Your task to perform on an android device: Open Google Chrome Image 0: 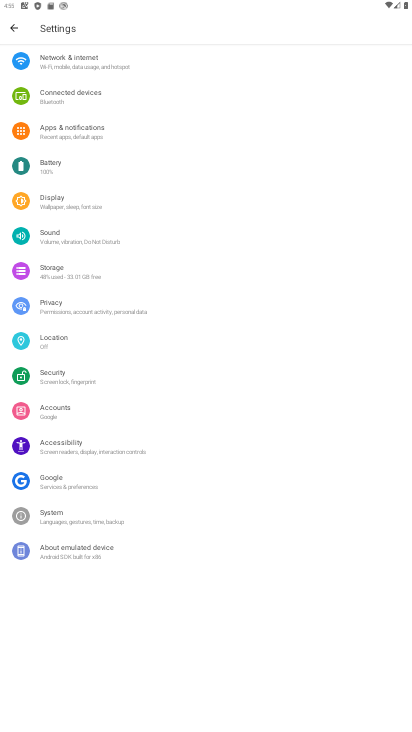
Step 0: press home button
Your task to perform on an android device: Open Google Chrome Image 1: 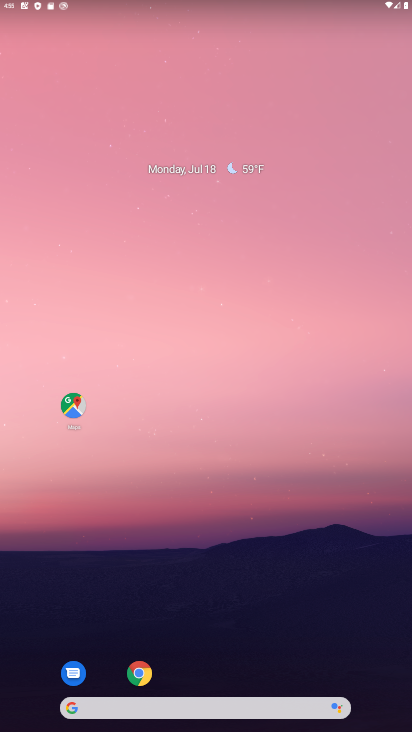
Step 1: drag from (289, 591) to (181, 202)
Your task to perform on an android device: Open Google Chrome Image 2: 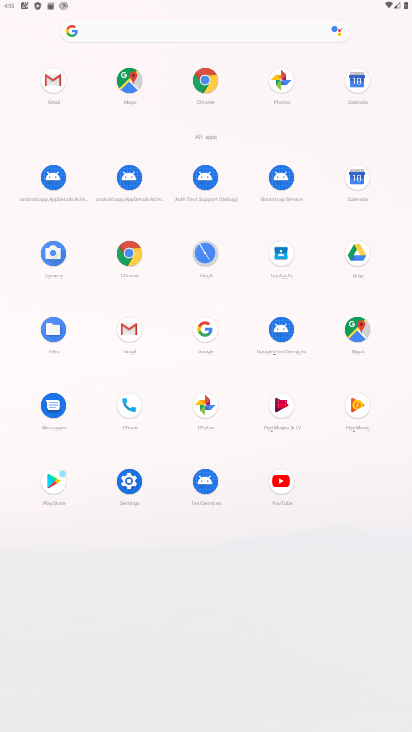
Step 2: click (210, 87)
Your task to perform on an android device: Open Google Chrome Image 3: 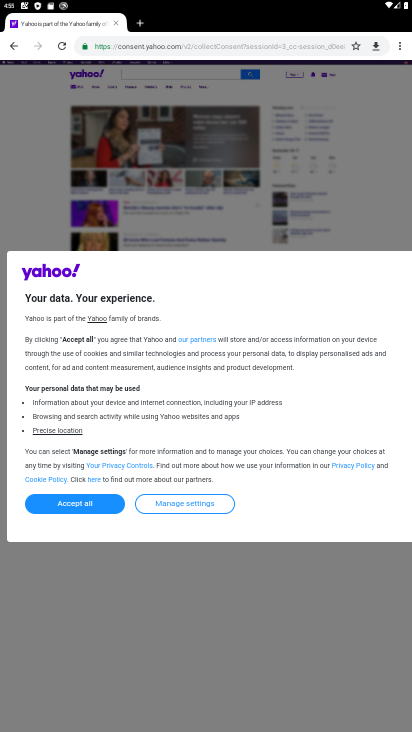
Step 3: task complete